Your task to perform on an android device: Go to ESPN.com Image 0: 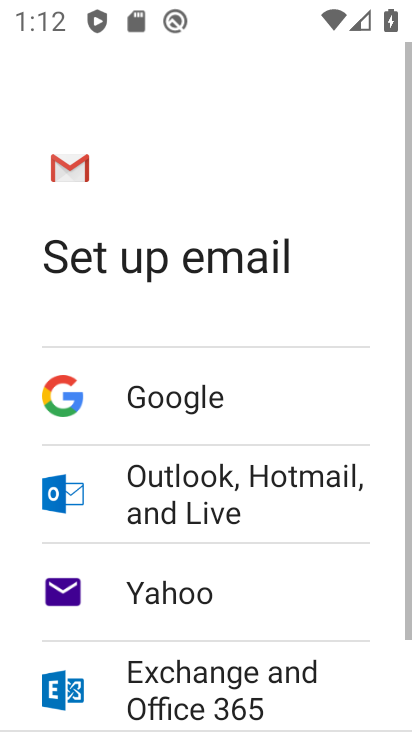
Step 0: press home button
Your task to perform on an android device: Go to ESPN.com Image 1: 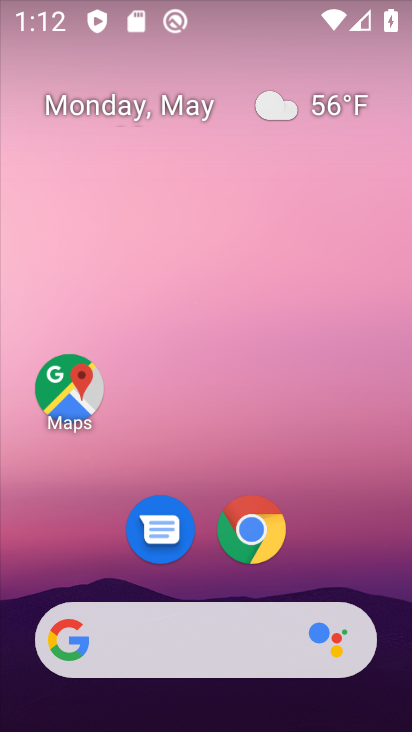
Step 1: click (256, 527)
Your task to perform on an android device: Go to ESPN.com Image 2: 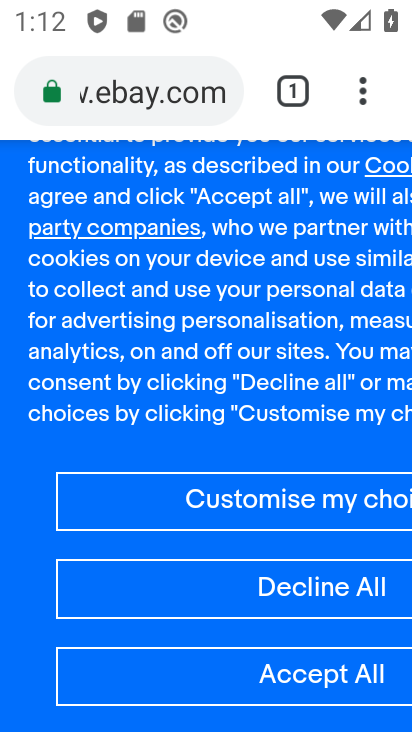
Step 2: click (148, 102)
Your task to perform on an android device: Go to ESPN.com Image 3: 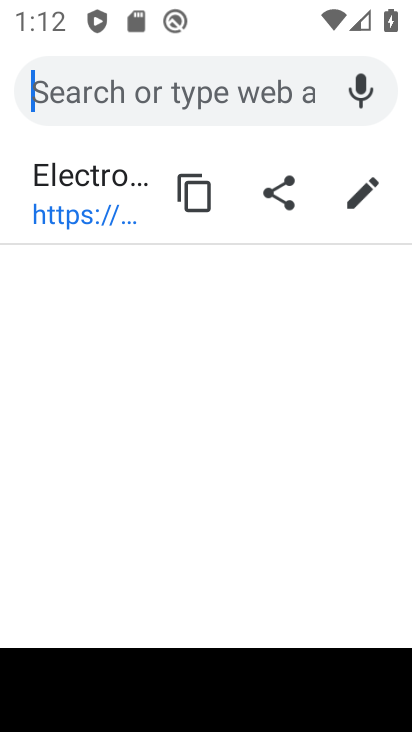
Step 3: type "ESPN.com"
Your task to perform on an android device: Go to ESPN.com Image 4: 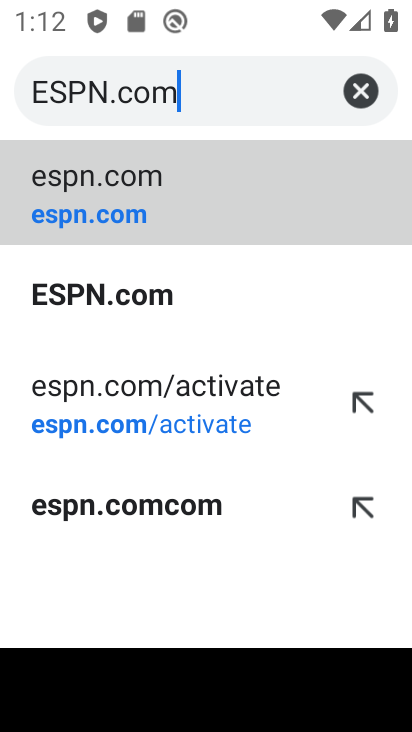
Step 4: click (78, 214)
Your task to perform on an android device: Go to ESPN.com Image 5: 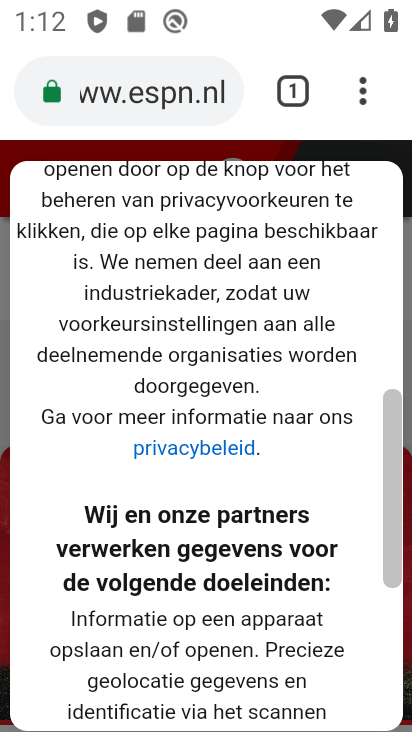
Step 5: task complete